Your task to perform on an android device: Open notification settings Image 0: 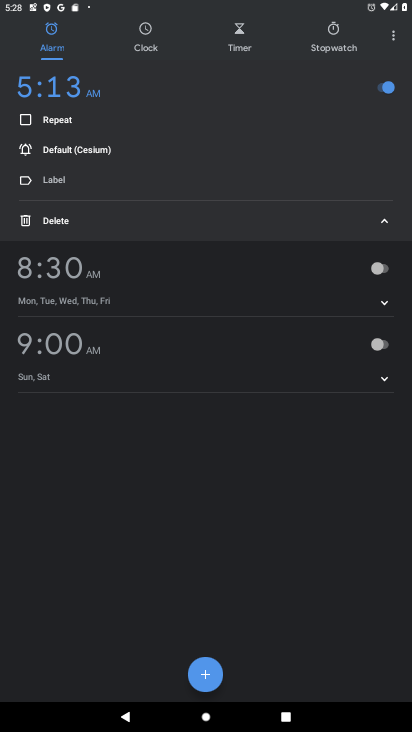
Step 0: press home button
Your task to perform on an android device: Open notification settings Image 1: 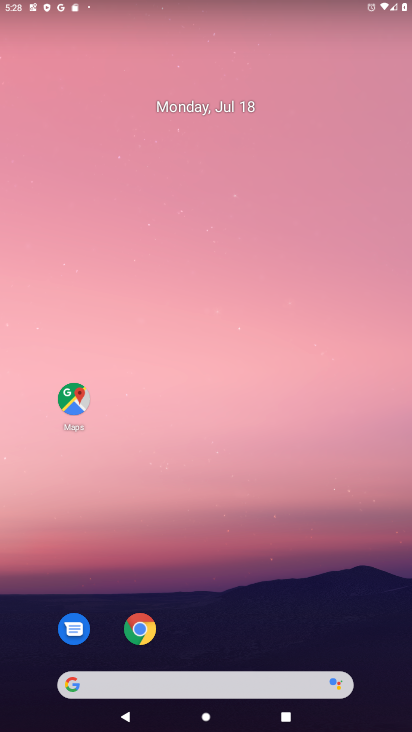
Step 1: drag from (341, 575) to (187, 31)
Your task to perform on an android device: Open notification settings Image 2: 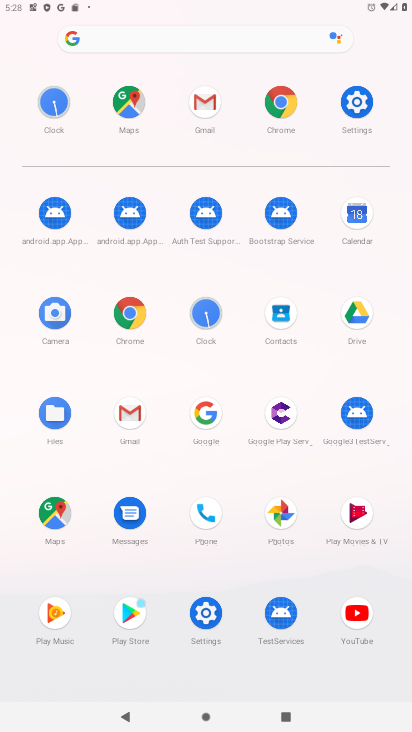
Step 2: click (365, 98)
Your task to perform on an android device: Open notification settings Image 3: 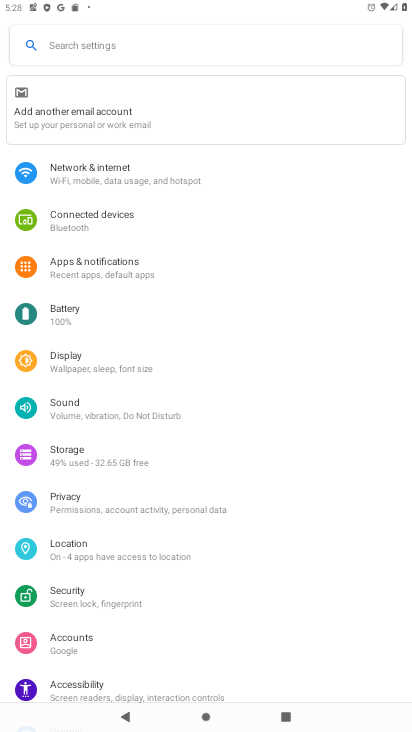
Step 3: click (100, 287)
Your task to perform on an android device: Open notification settings Image 4: 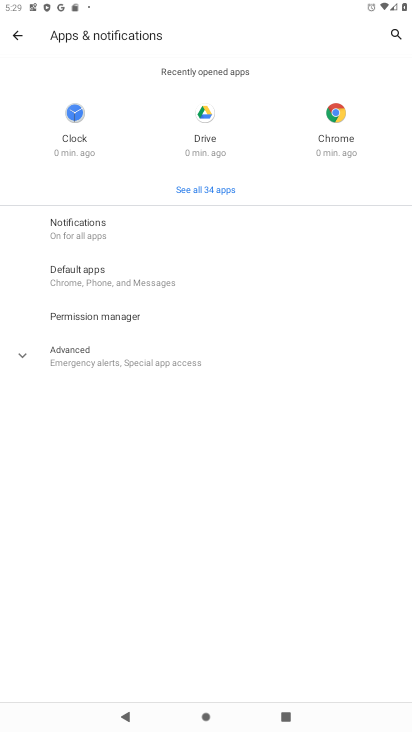
Step 4: click (106, 229)
Your task to perform on an android device: Open notification settings Image 5: 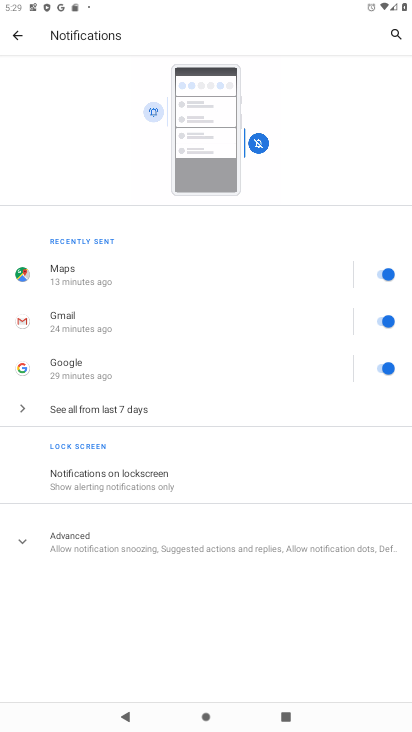
Step 5: task complete